Your task to perform on an android device: Go to Yahoo.com Image 0: 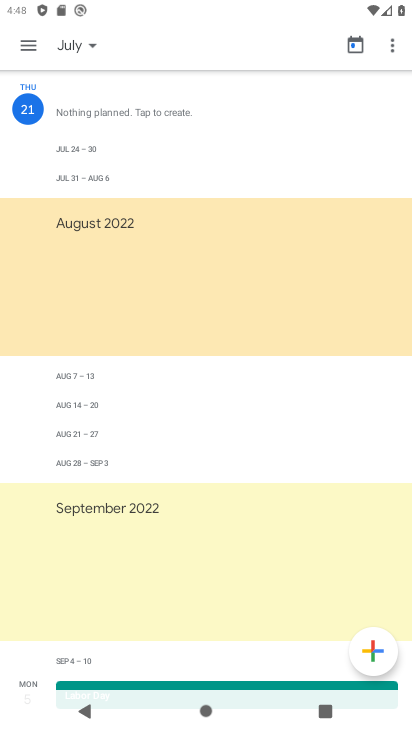
Step 0: press home button
Your task to perform on an android device: Go to Yahoo.com Image 1: 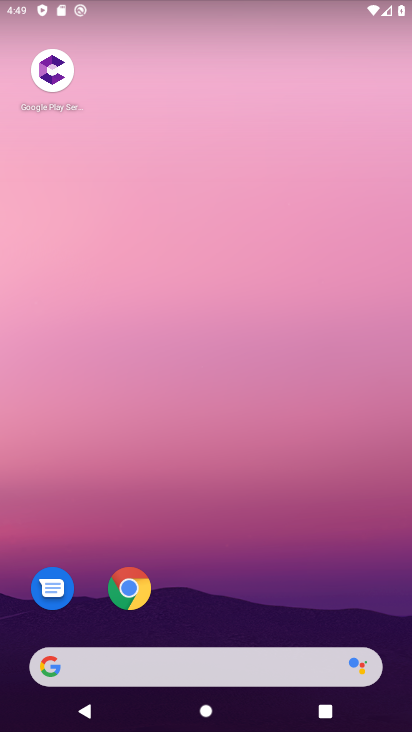
Step 1: click (135, 590)
Your task to perform on an android device: Go to Yahoo.com Image 2: 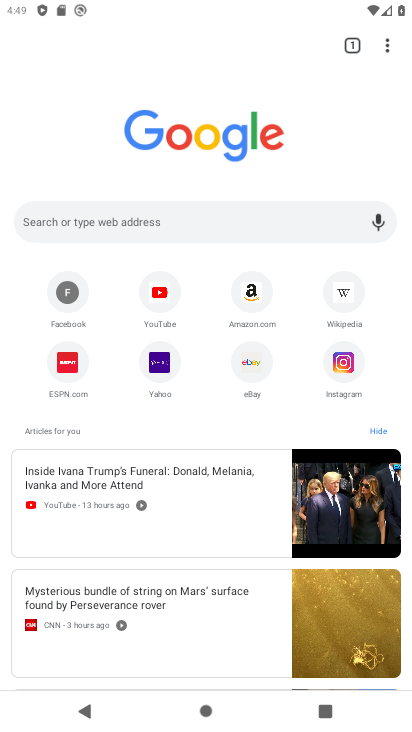
Step 2: click (160, 370)
Your task to perform on an android device: Go to Yahoo.com Image 3: 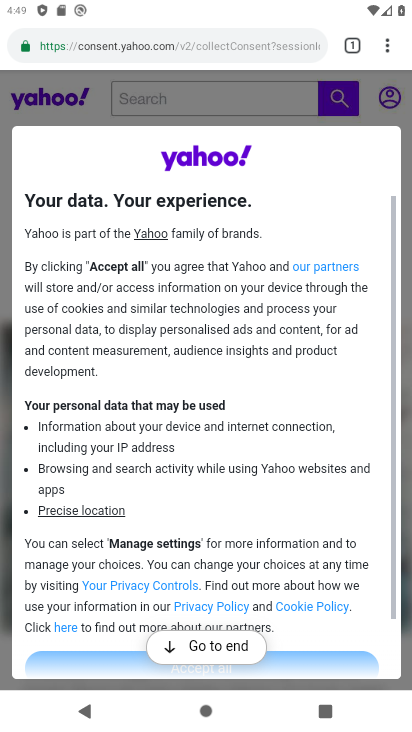
Step 3: task complete